Your task to perform on an android device: Open accessibility settings Image 0: 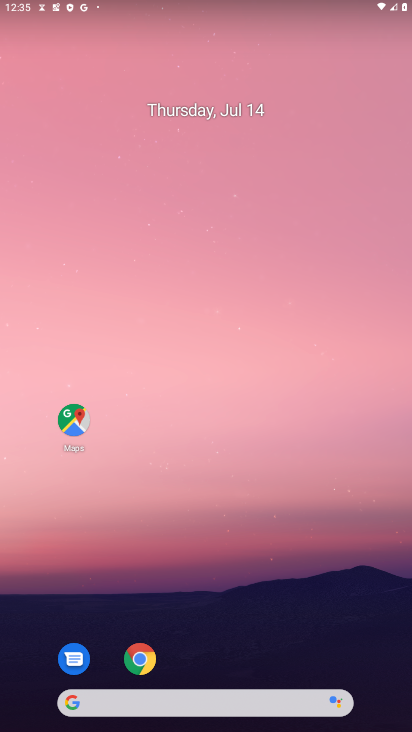
Step 0: click (65, 438)
Your task to perform on an android device: Open accessibility settings Image 1: 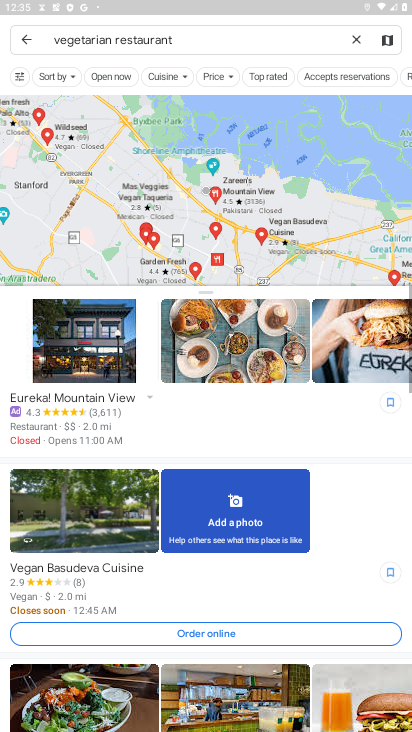
Step 1: click (16, 41)
Your task to perform on an android device: Open accessibility settings Image 2: 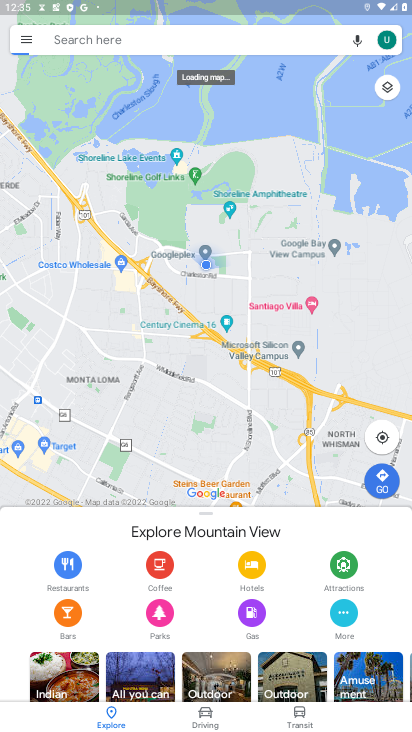
Step 2: press home button
Your task to perform on an android device: Open accessibility settings Image 3: 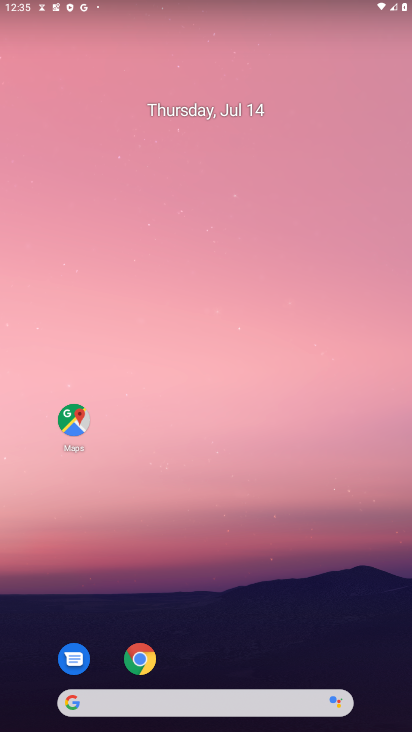
Step 3: drag from (53, 636) to (411, 62)
Your task to perform on an android device: Open accessibility settings Image 4: 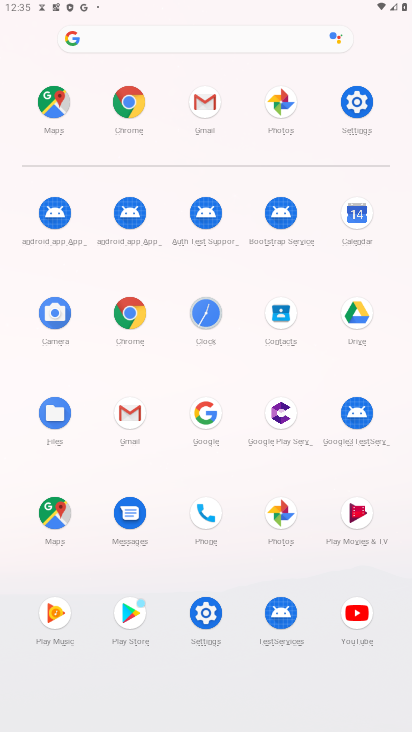
Step 4: click (216, 614)
Your task to perform on an android device: Open accessibility settings Image 5: 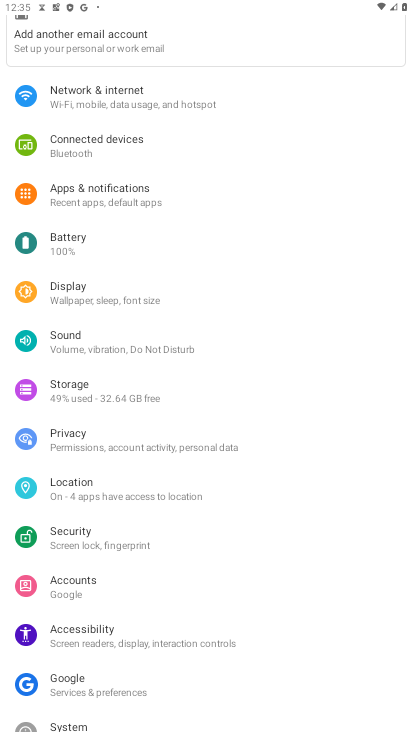
Step 5: click (83, 624)
Your task to perform on an android device: Open accessibility settings Image 6: 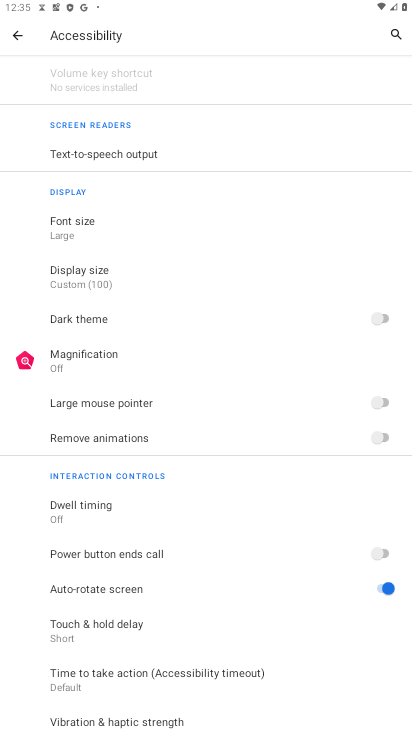
Step 6: task complete